Your task to perform on an android device: Open Google Chrome and click the shortcut for Amazon.com Image 0: 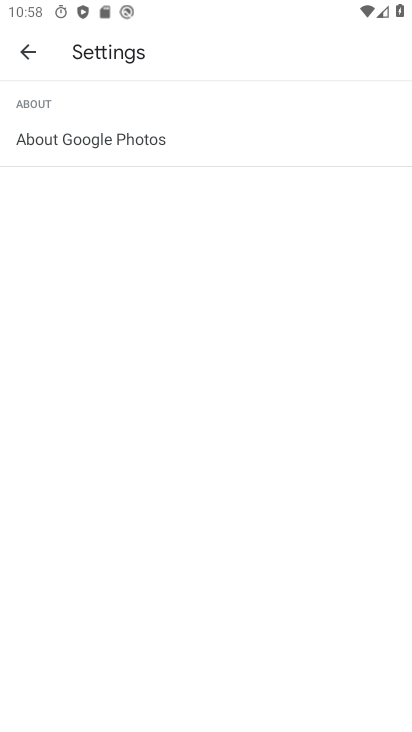
Step 0: press home button
Your task to perform on an android device: Open Google Chrome and click the shortcut for Amazon.com Image 1: 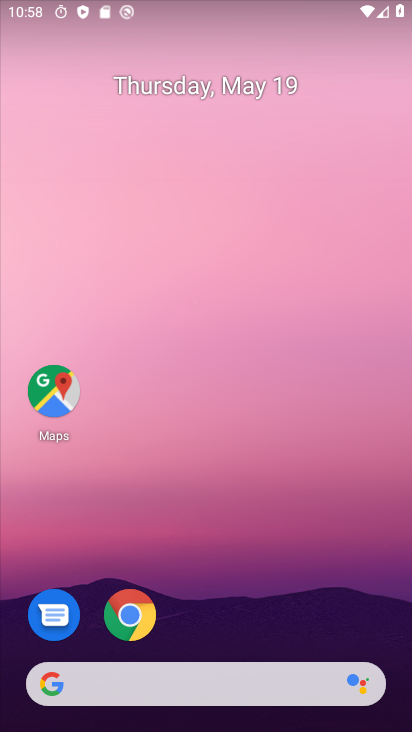
Step 1: click (138, 611)
Your task to perform on an android device: Open Google Chrome and click the shortcut for Amazon.com Image 2: 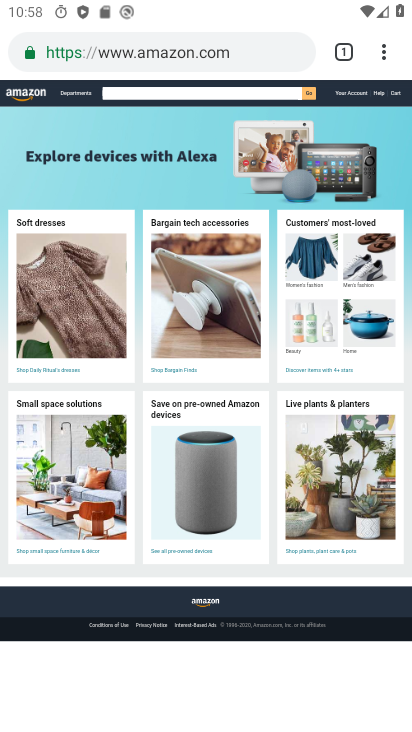
Step 2: task complete